Your task to perform on an android device: Open the web browser Image 0: 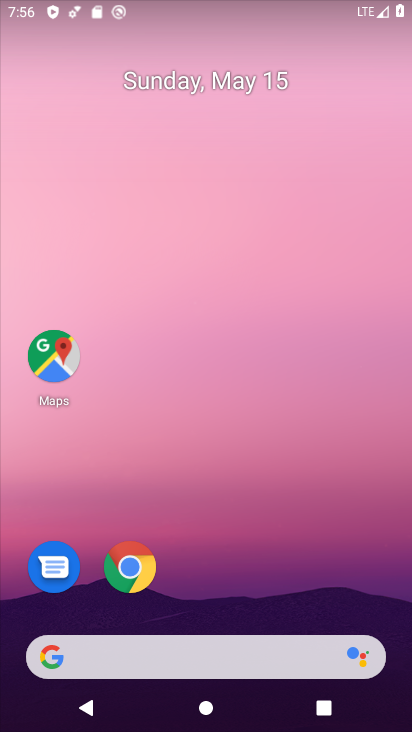
Step 0: click (127, 578)
Your task to perform on an android device: Open the web browser Image 1: 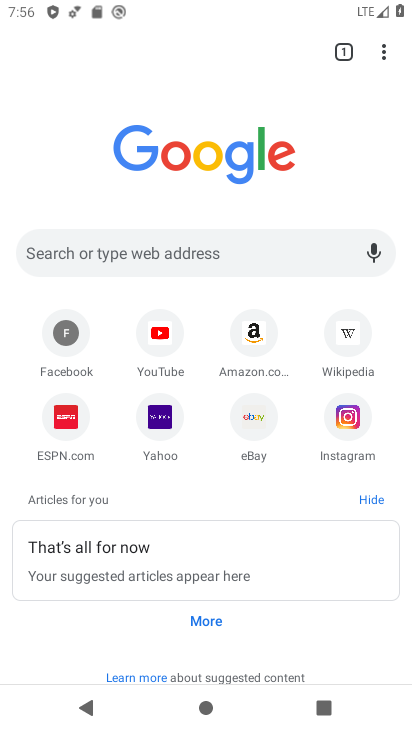
Step 1: task complete